Your task to perform on an android device: Search for Italian restaurants on Maps Image 0: 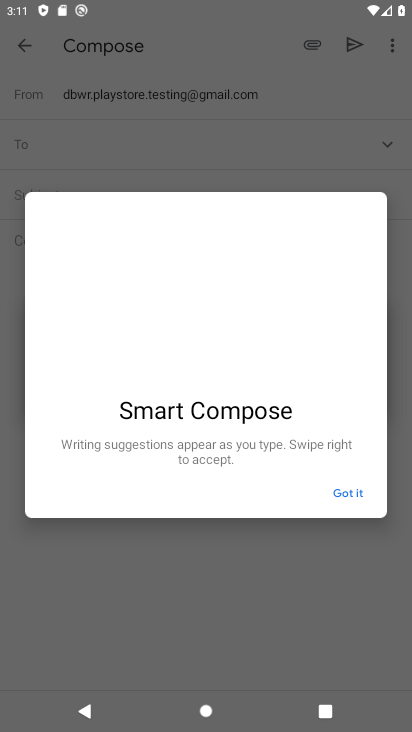
Step 0: press home button
Your task to perform on an android device: Search for Italian restaurants on Maps Image 1: 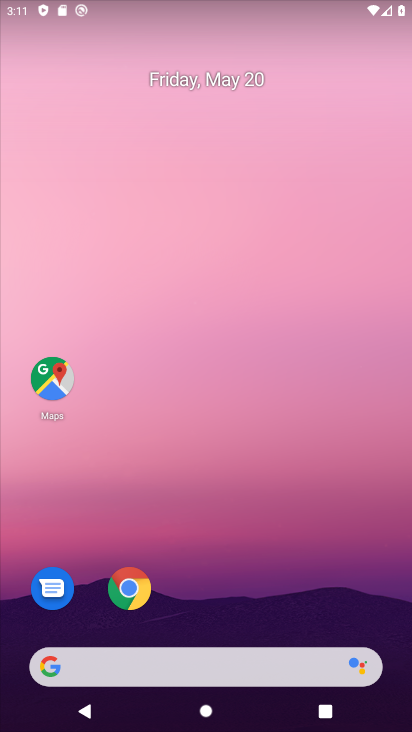
Step 1: click (53, 378)
Your task to perform on an android device: Search for Italian restaurants on Maps Image 2: 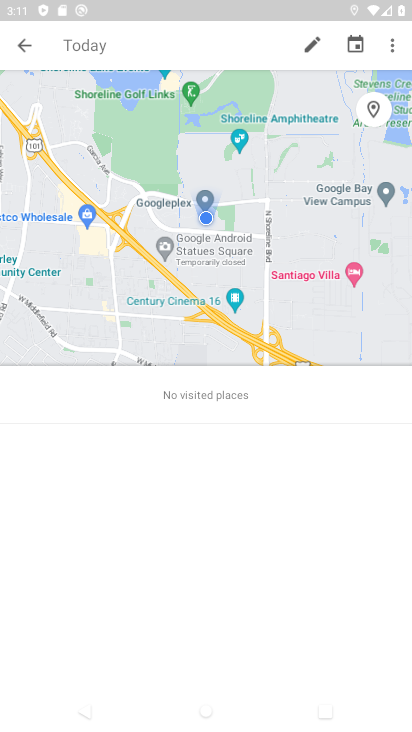
Step 2: click (106, 50)
Your task to perform on an android device: Search for Italian restaurants on Maps Image 3: 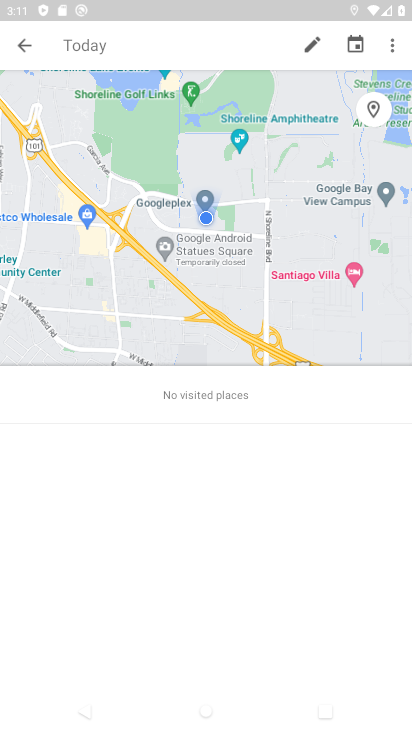
Step 3: press back button
Your task to perform on an android device: Search for Italian restaurants on Maps Image 4: 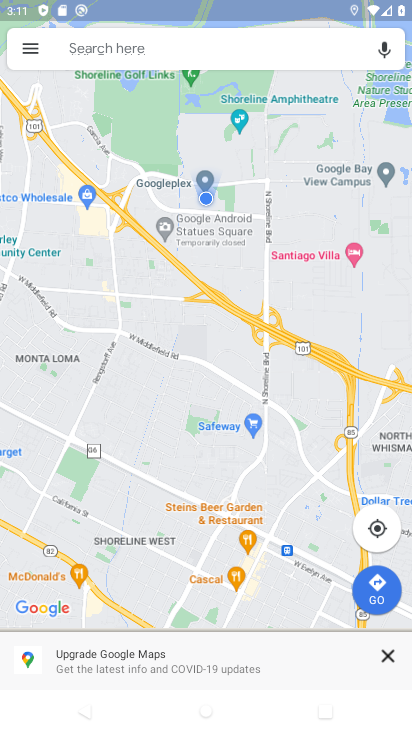
Step 4: click (133, 43)
Your task to perform on an android device: Search for Italian restaurants on Maps Image 5: 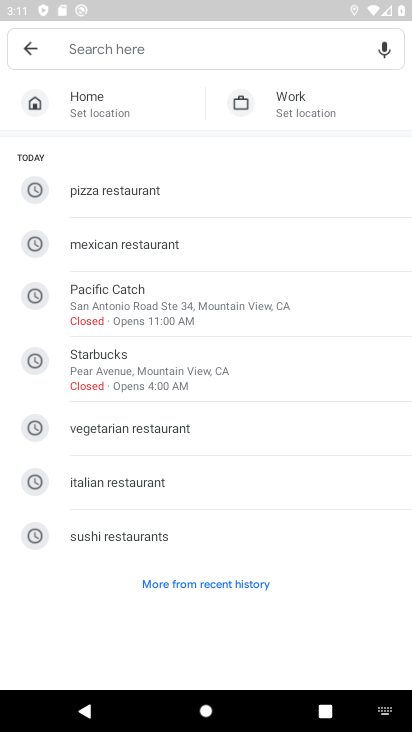
Step 5: click (154, 492)
Your task to perform on an android device: Search for Italian restaurants on Maps Image 6: 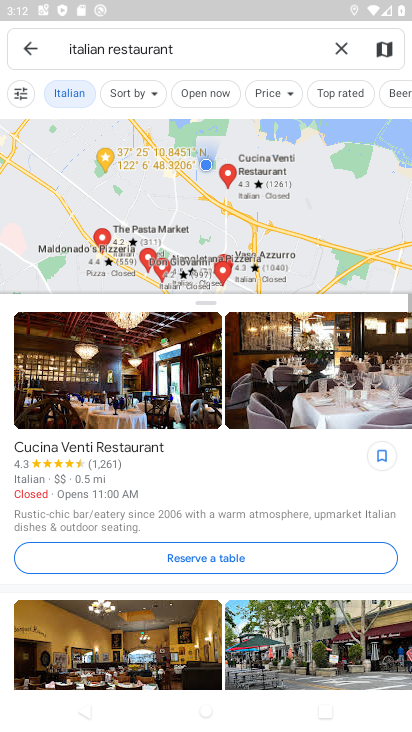
Step 6: task complete